Your task to perform on an android device: turn on data saver in the chrome app Image 0: 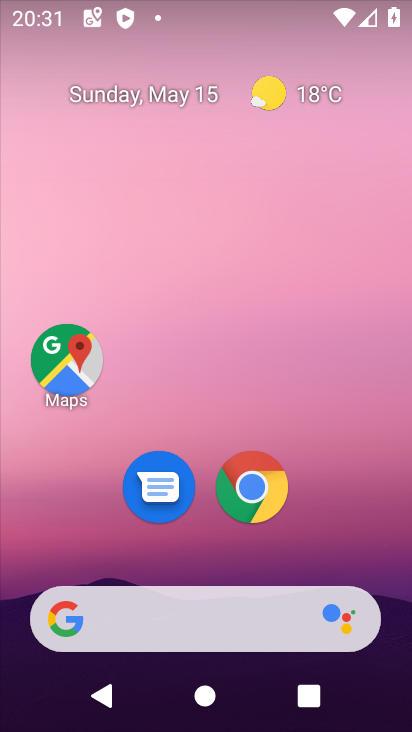
Step 0: click (251, 491)
Your task to perform on an android device: turn on data saver in the chrome app Image 1: 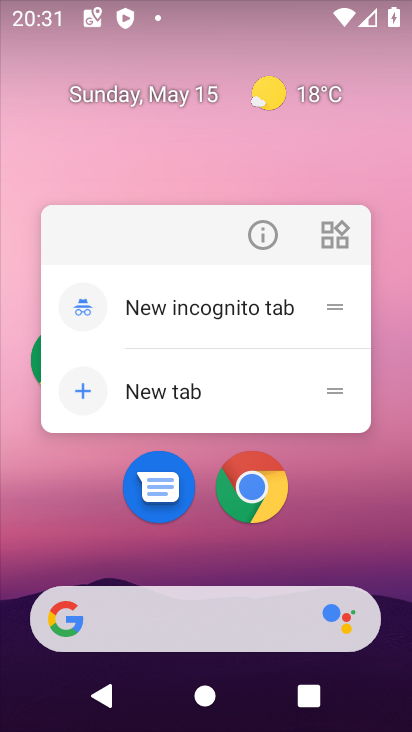
Step 1: click (263, 484)
Your task to perform on an android device: turn on data saver in the chrome app Image 2: 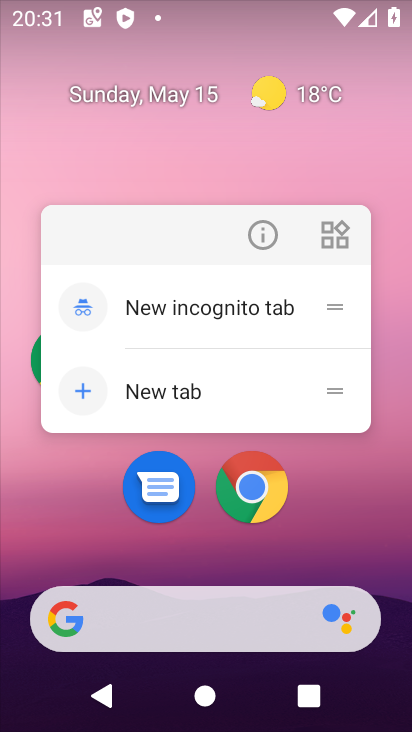
Step 2: click (258, 486)
Your task to perform on an android device: turn on data saver in the chrome app Image 3: 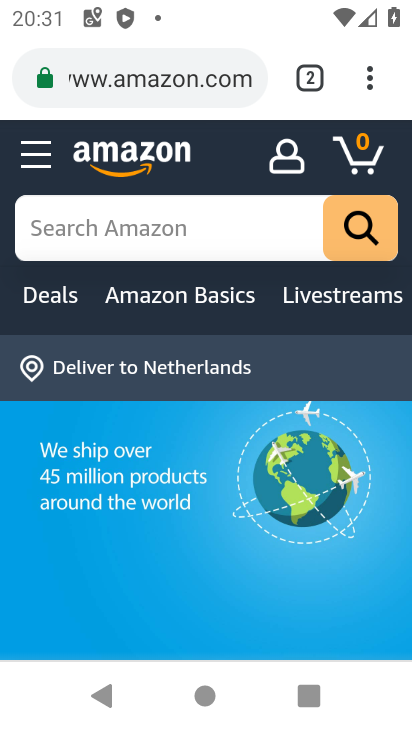
Step 3: click (367, 74)
Your task to perform on an android device: turn on data saver in the chrome app Image 4: 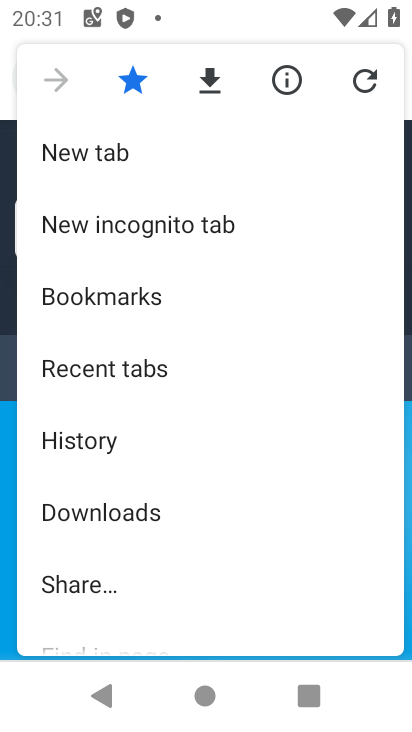
Step 4: drag from (260, 572) to (286, 277)
Your task to perform on an android device: turn on data saver in the chrome app Image 5: 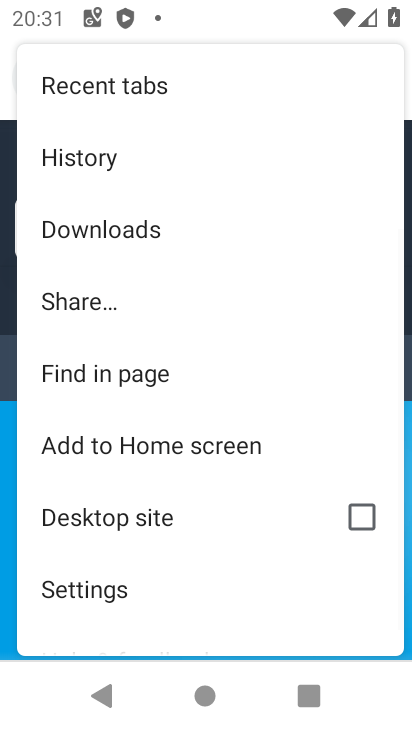
Step 5: drag from (261, 572) to (257, 375)
Your task to perform on an android device: turn on data saver in the chrome app Image 6: 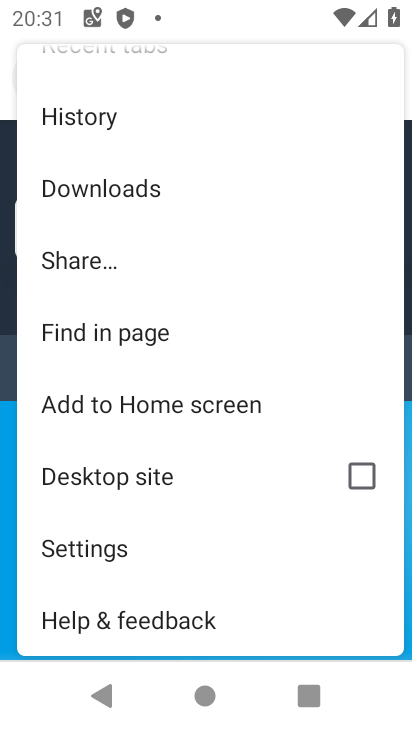
Step 6: click (90, 546)
Your task to perform on an android device: turn on data saver in the chrome app Image 7: 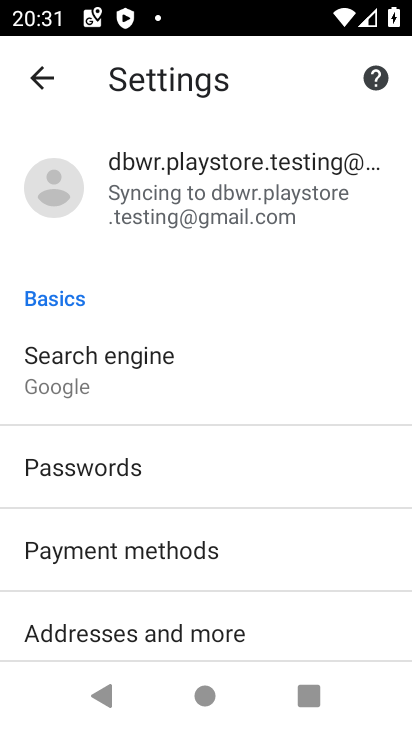
Step 7: drag from (289, 617) to (304, 410)
Your task to perform on an android device: turn on data saver in the chrome app Image 8: 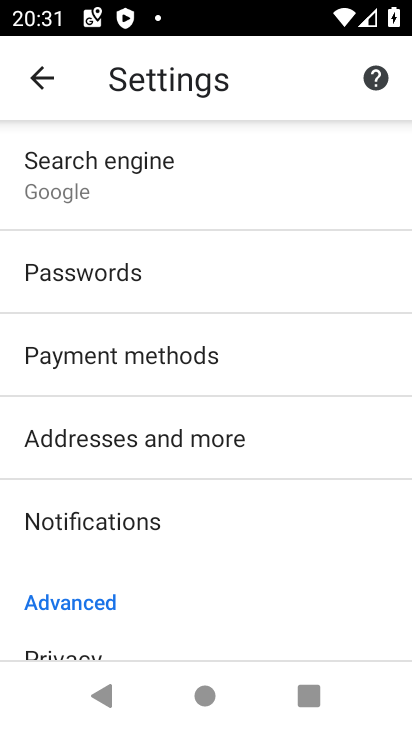
Step 8: drag from (287, 563) to (315, 379)
Your task to perform on an android device: turn on data saver in the chrome app Image 9: 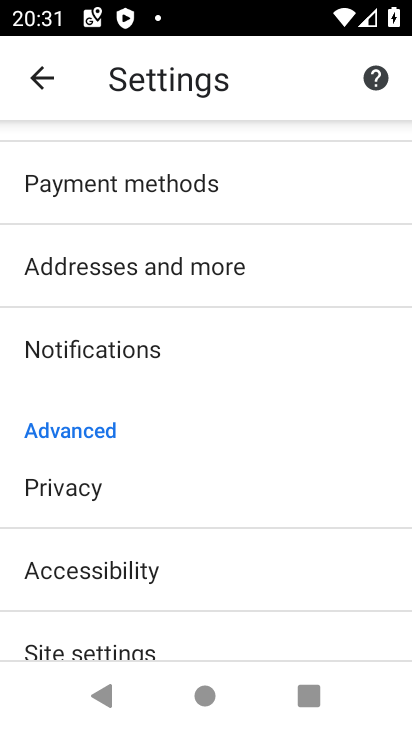
Step 9: drag from (306, 572) to (352, 337)
Your task to perform on an android device: turn on data saver in the chrome app Image 10: 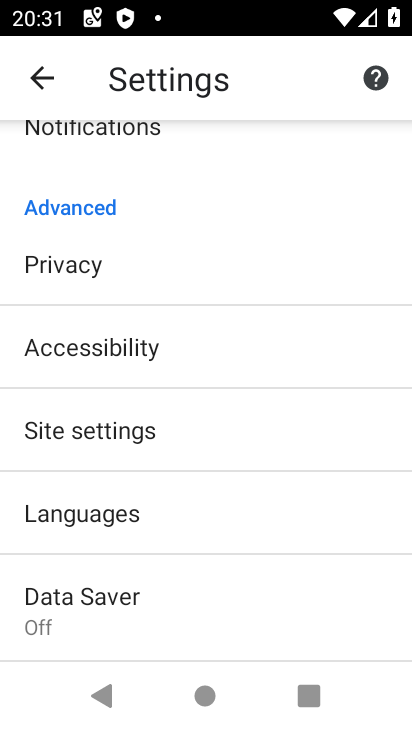
Step 10: click (79, 594)
Your task to perform on an android device: turn on data saver in the chrome app Image 11: 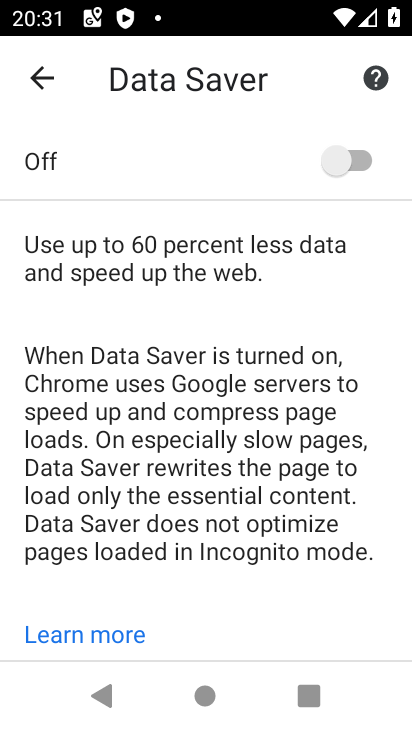
Step 11: click (358, 157)
Your task to perform on an android device: turn on data saver in the chrome app Image 12: 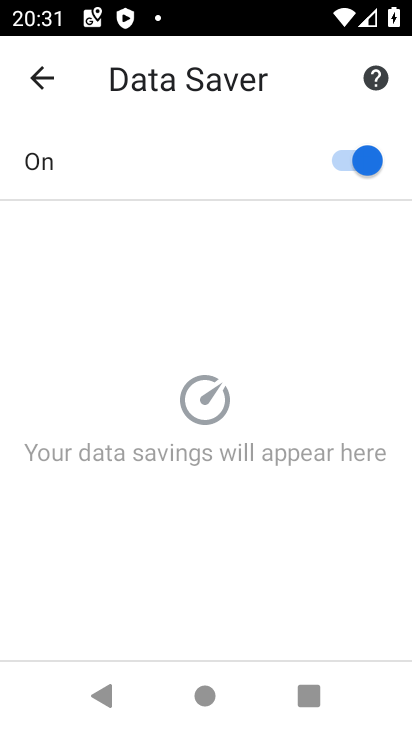
Step 12: click (368, 155)
Your task to perform on an android device: turn on data saver in the chrome app Image 13: 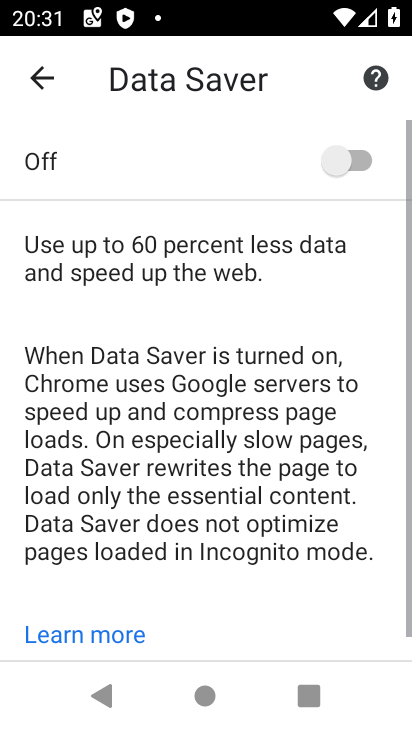
Step 13: click (369, 152)
Your task to perform on an android device: turn on data saver in the chrome app Image 14: 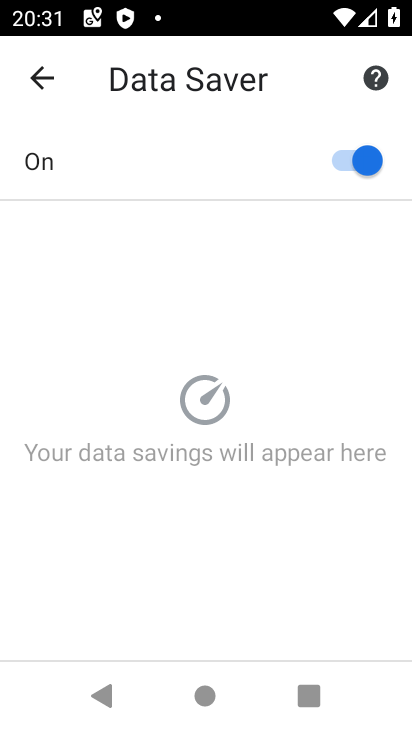
Step 14: task complete